Your task to perform on an android device: Go to settings Image 0: 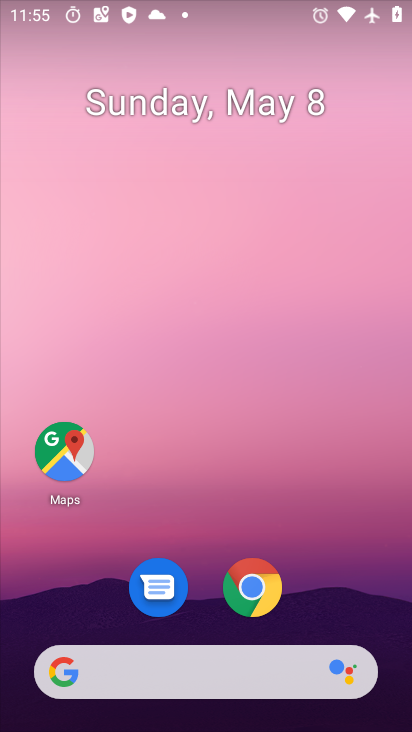
Step 0: drag from (345, 605) to (163, 90)
Your task to perform on an android device: Go to settings Image 1: 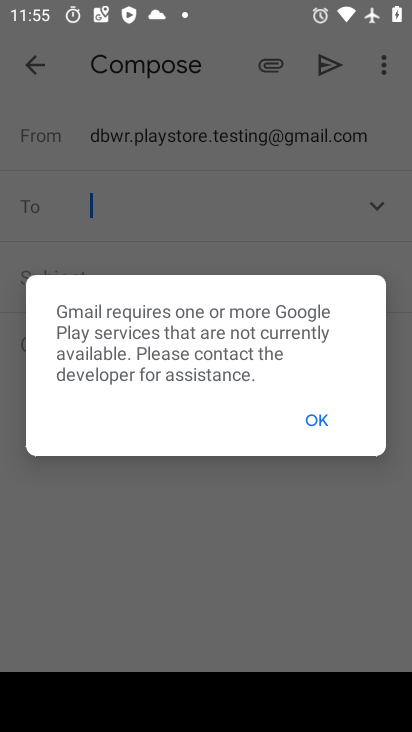
Step 1: click (334, 421)
Your task to perform on an android device: Go to settings Image 2: 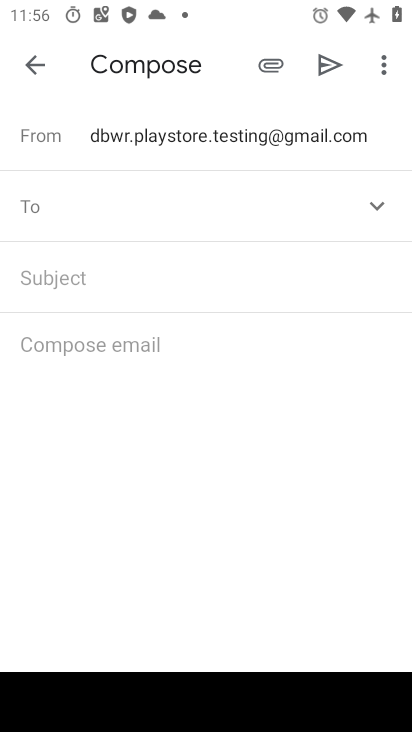
Step 2: click (48, 69)
Your task to perform on an android device: Go to settings Image 3: 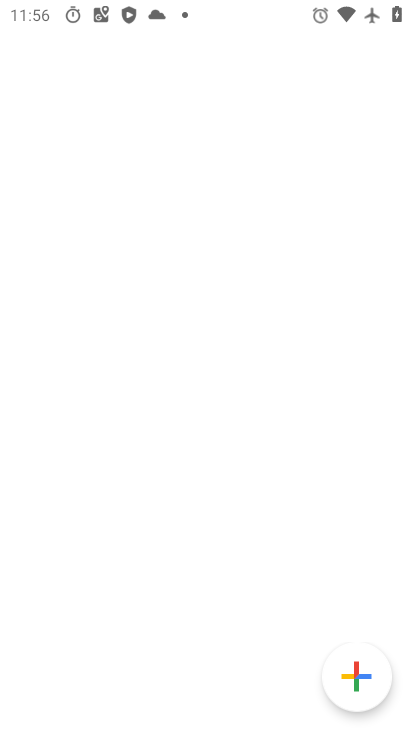
Step 3: click (42, 69)
Your task to perform on an android device: Go to settings Image 4: 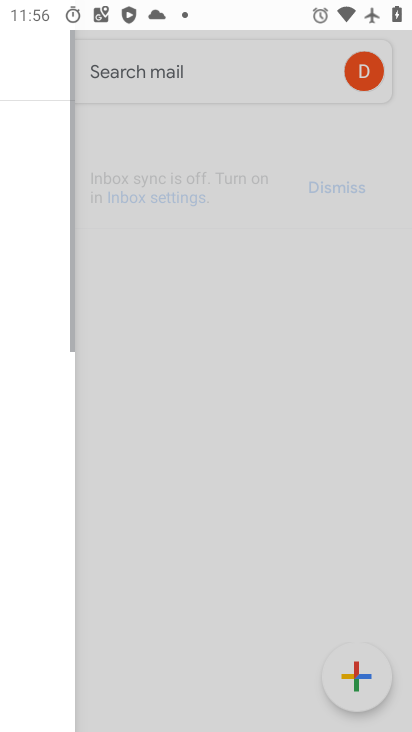
Step 4: click (41, 72)
Your task to perform on an android device: Go to settings Image 5: 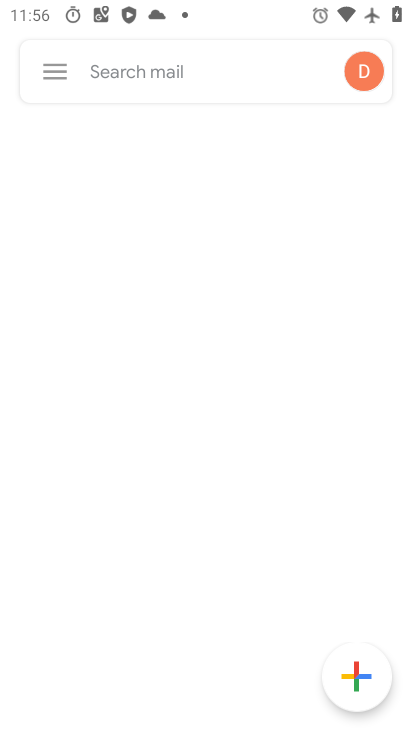
Step 5: click (42, 73)
Your task to perform on an android device: Go to settings Image 6: 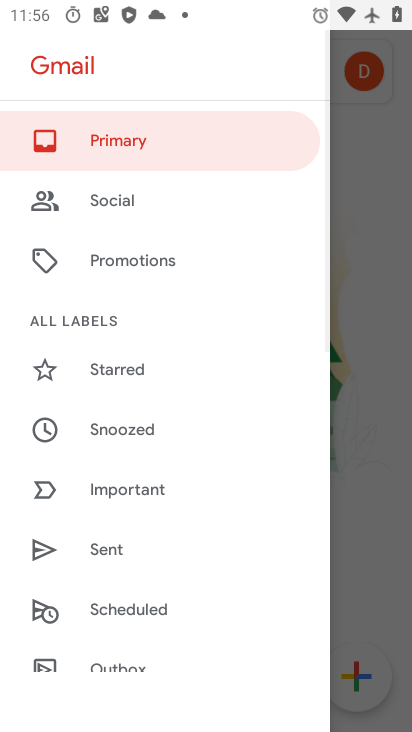
Step 6: press home button
Your task to perform on an android device: Go to settings Image 7: 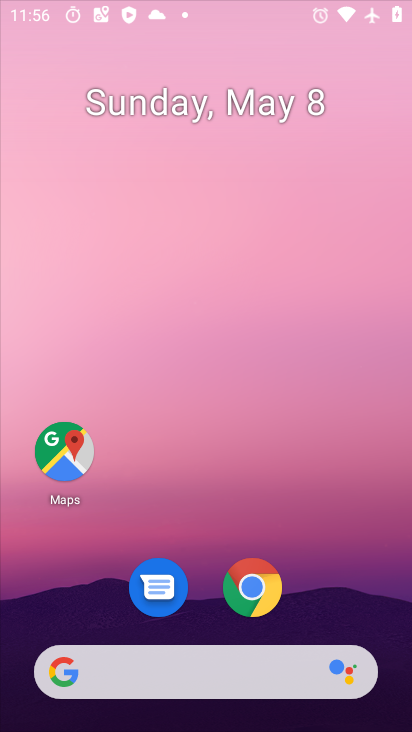
Step 7: press home button
Your task to perform on an android device: Go to settings Image 8: 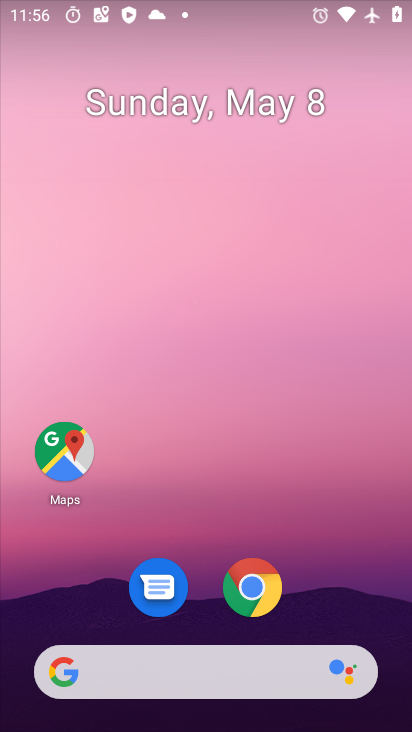
Step 8: press home button
Your task to perform on an android device: Go to settings Image 9: 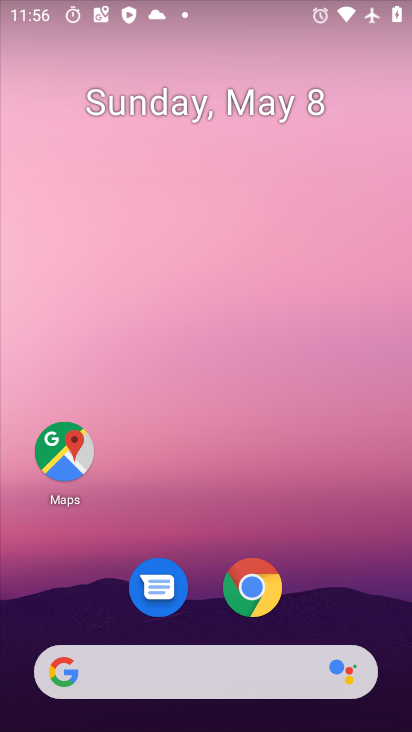
Step 9: drag from (341, 590) to (175, 106)
Your task to perform on an android device: Go to settings Image 10: 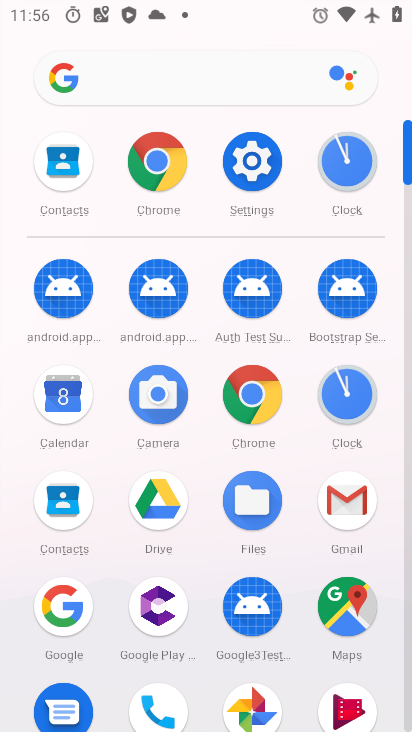
Step 10: click (251, 165)
Your task to perform on an android device: Go to settings Image 11: 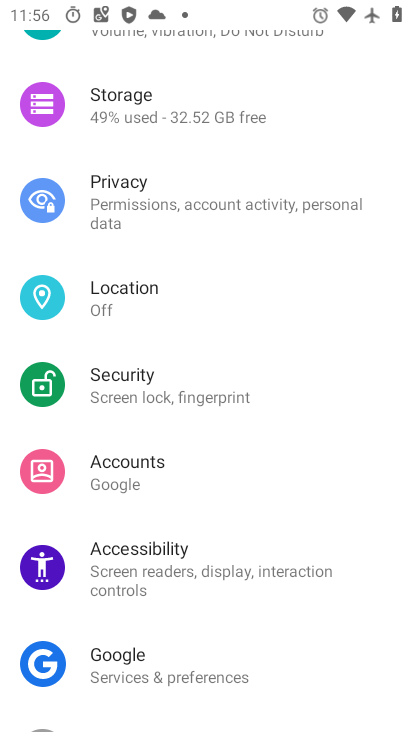
Step 11: task complete